Your task to perform on an android device: find snoozed emails in the gmail app Image 0: 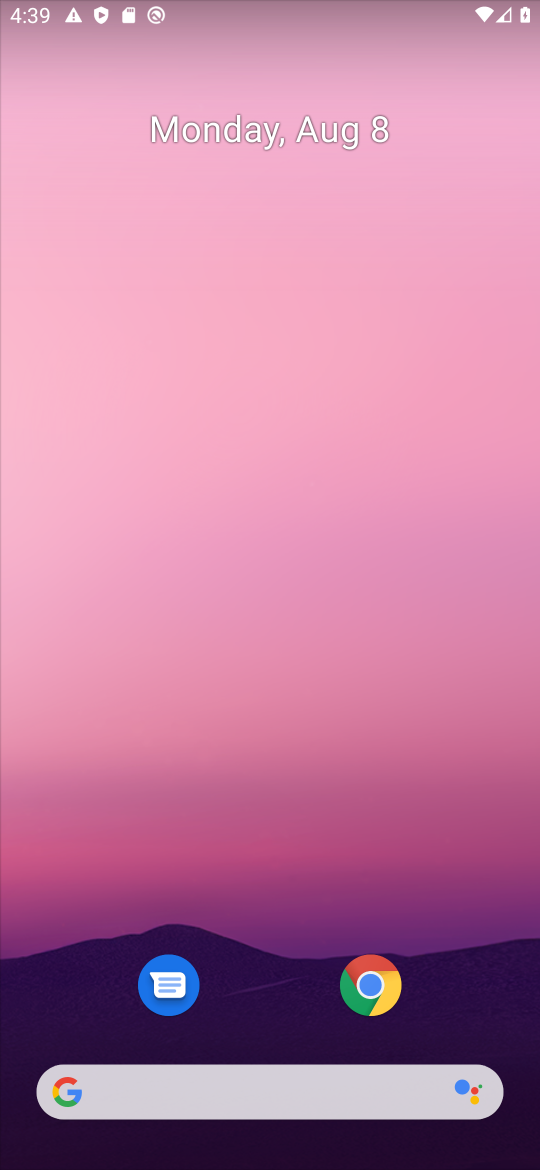
Step 0: drag from (266, 851) to (316, 106)
Your task to perform on an android device: find snoozed emails in the gmail app Image 1: 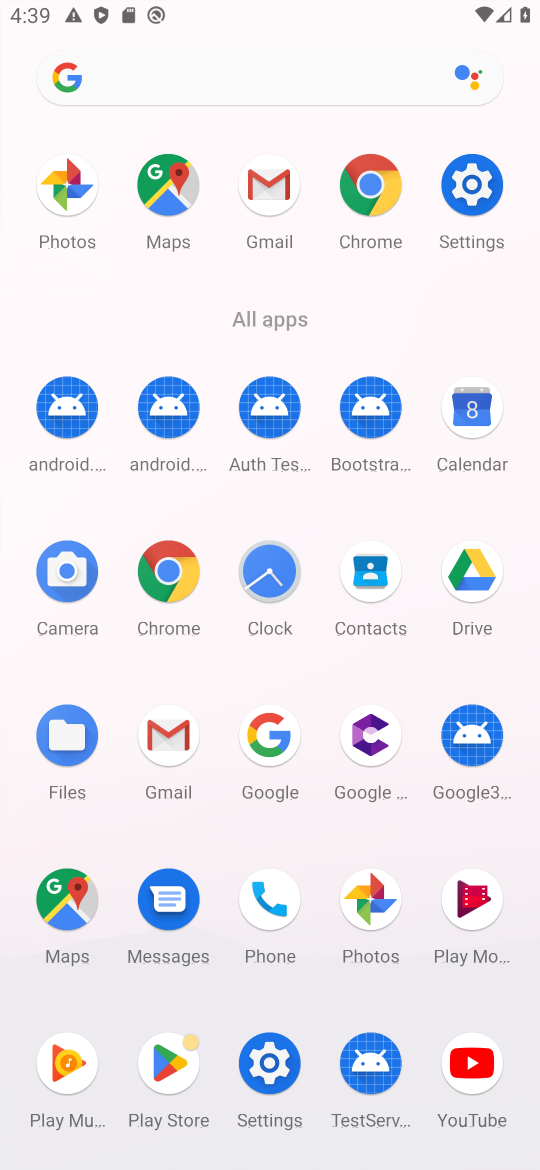
Step 1: click (269, 177)
Your task to perform on an android device: find snoozed emails in the gmail app Image 2: 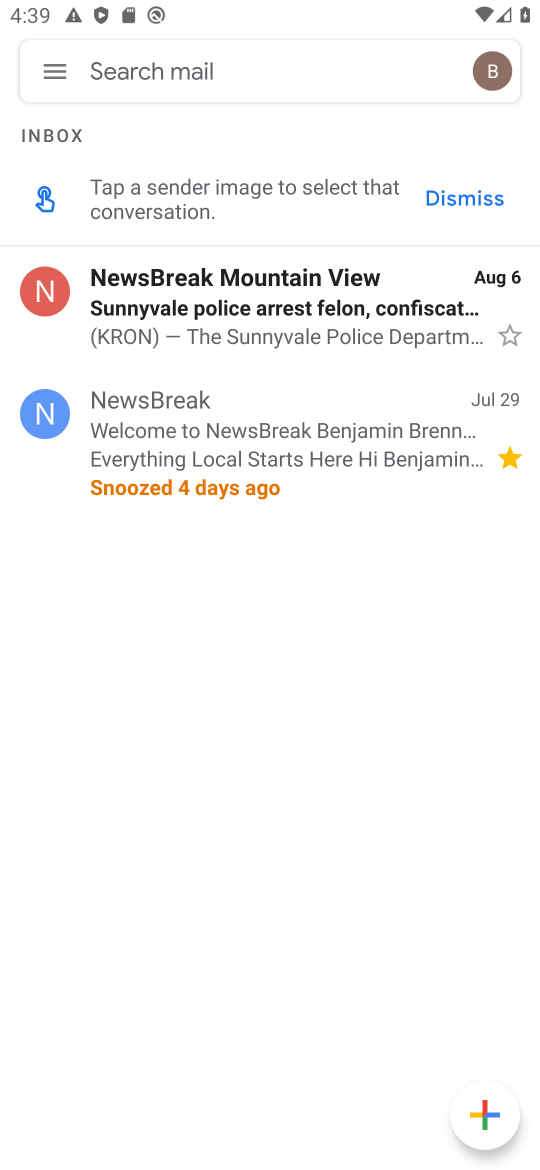
Step 2: task complete